Your task to perform on an android device: Open settings on Google Maps Image 0: 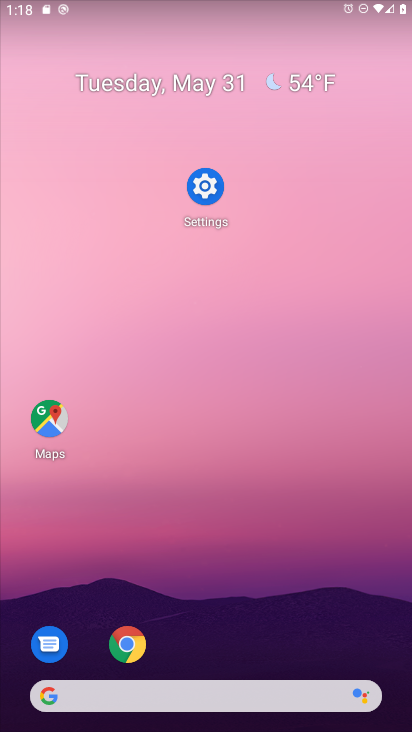
Step 0: press home button
Your task to perform on an android device: Open settings on Google Maps Image 1: 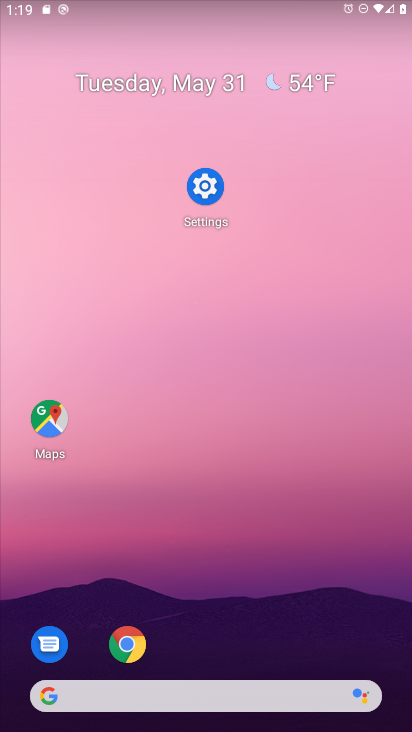
Step 1: click (47, 414)
Your task to perform on an android device: Open settings on Google Maps Image 2: 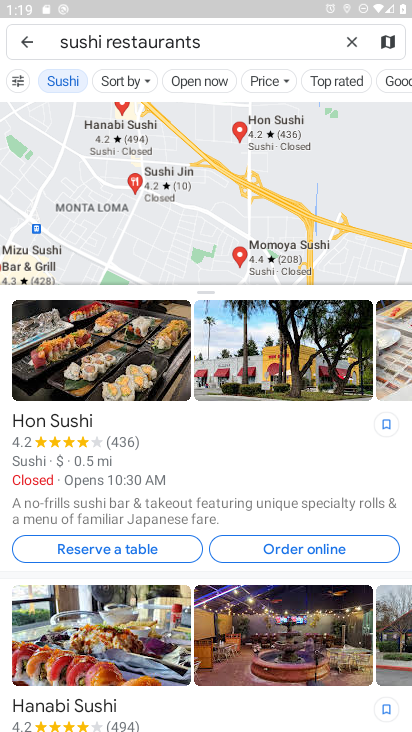
Step 2: click (352, 39)
Your task to perform on an android device: Open settings on Google Maps Image 3: 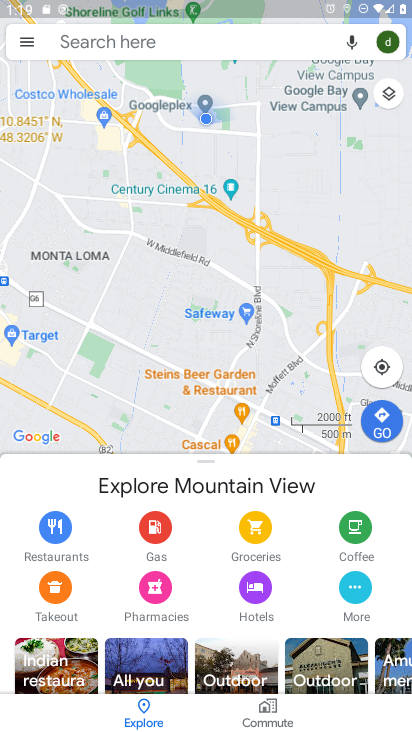
Step 3: click (23, 43)
Your task to perform on an android device: Open settings on Google Maps Image 4: 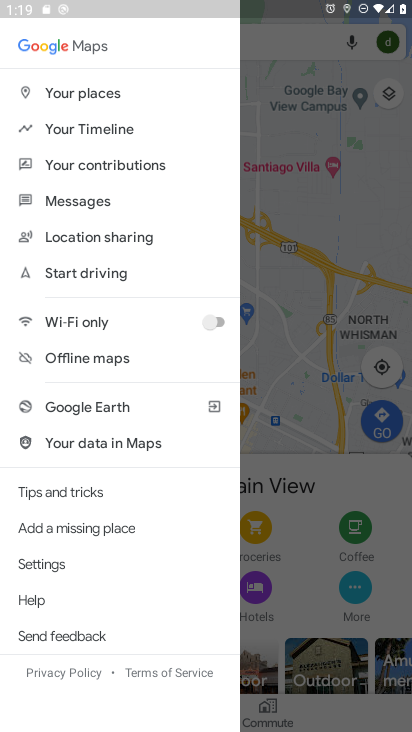
Step 4: click (39, 567)
Your task to perform on an android device: Open settings on Google Maps Image 5: 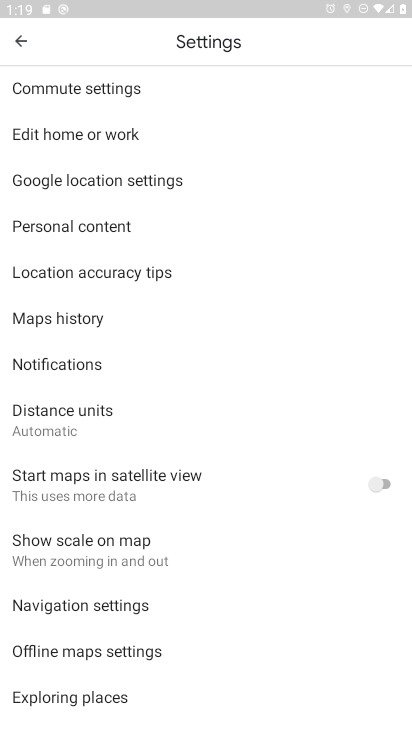
Step 5: task complete